Your task to perform on an android device: change the clock display to analog Image 0: 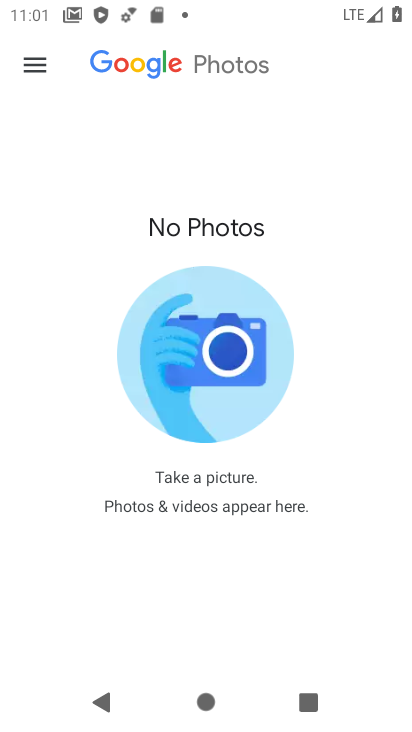
Step 0: press home button
Your task to perform on an android device: change the clock display to analog Image 1: 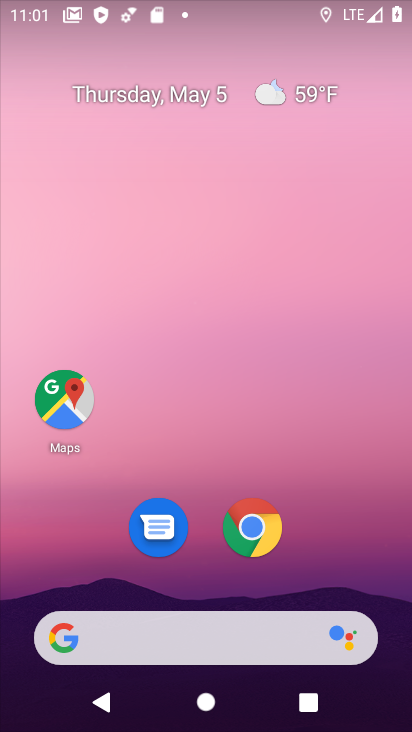
Step 1: drag from (199, 590) to (208, 77)
Your task to perform on an android device: change the clock display to analog Image 2: 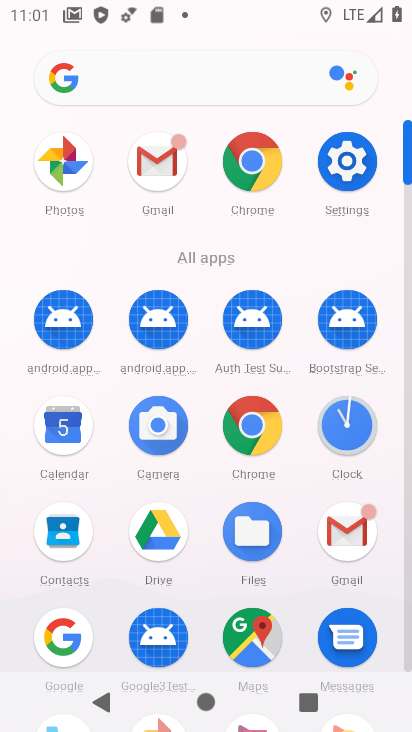
Step 2: click (356, 427)
Your task to perform on an android device: change the clock display to analog Image 3: 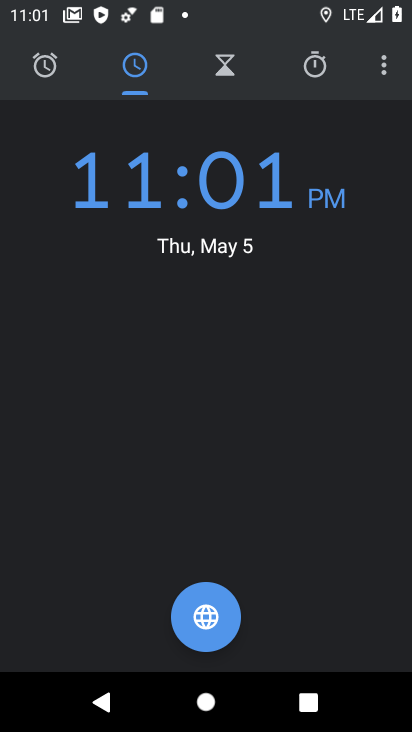
Step 3: click (367, 59)
Your task to perform on an android device: change the clock display to analog Image 4: 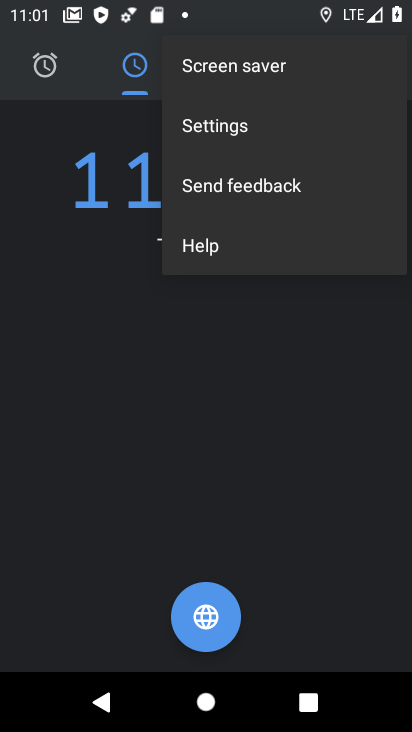
Step 4: click (208, 140)
Your task to perform on an android device: change the clock display to analog Image 5: 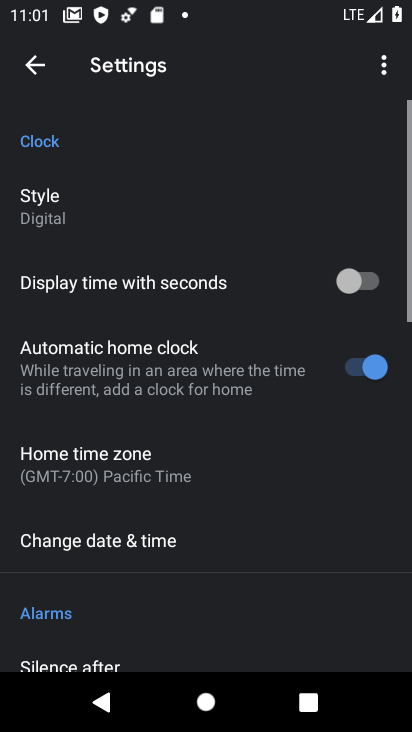
Step 5: click (68, 221)
Your task to perform on an android device: change the clock display to analog Image 6: 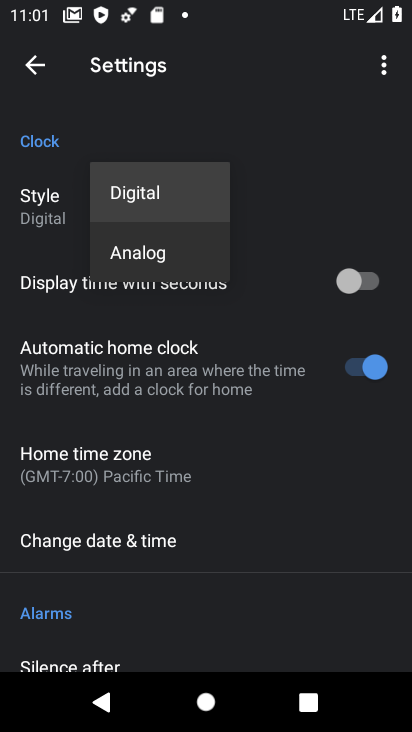
Step 6: click (158, 262)
Your task to perform on an android device: change the clock display to analog Image 7: 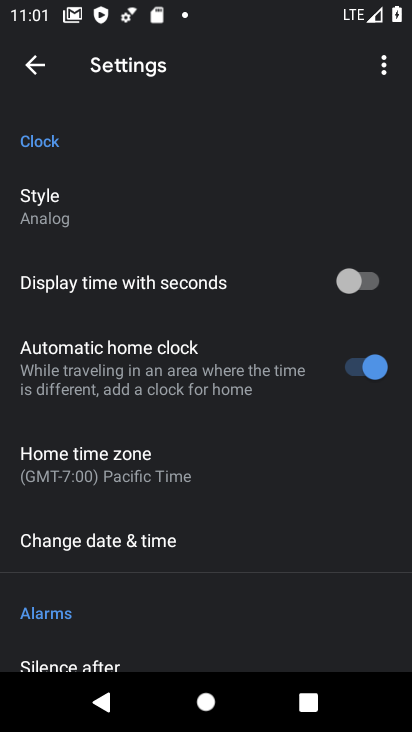
Step 7: task complete